Your task to perform on an android device: Open notification settings Image 0: 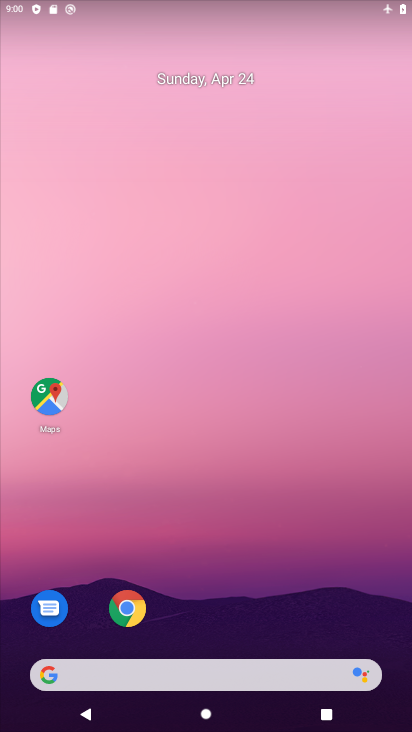
Step 0: drag from (205, 635) to (276, 92)
Your task to perform on an android device: Open notification settings Image 1: 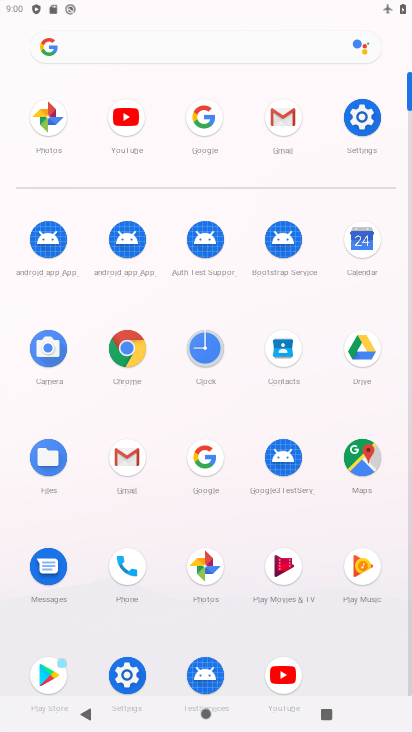
Step 1: click (346, 111)
Your task to perform on an android device: Open notification settings Image 2: 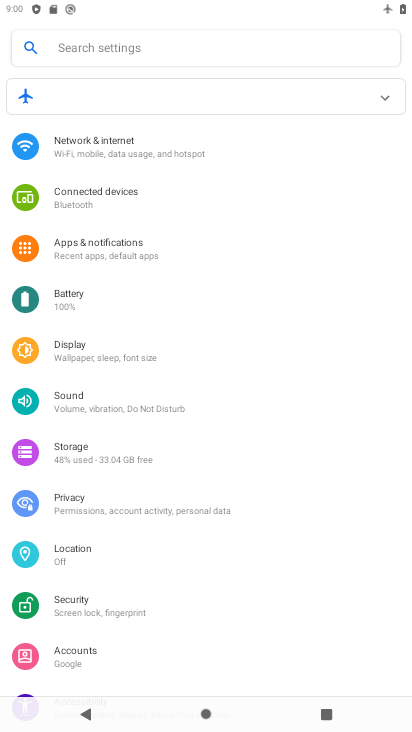
Step 2: click (142, 247)
Your task to perform on an android device: Open notification settings Image 3: 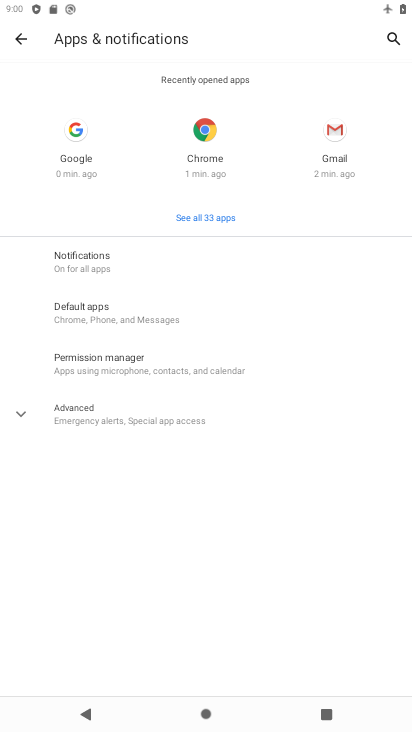
Step 3: click (103, 269)
Your task to perform on an android device: Open notification settings Image 4: 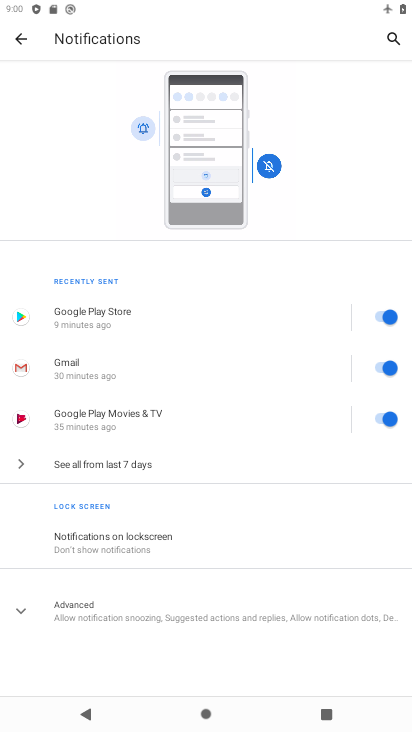
Step 4: task complete